Your task to perform on an android device: toggle notification dots Image 0: 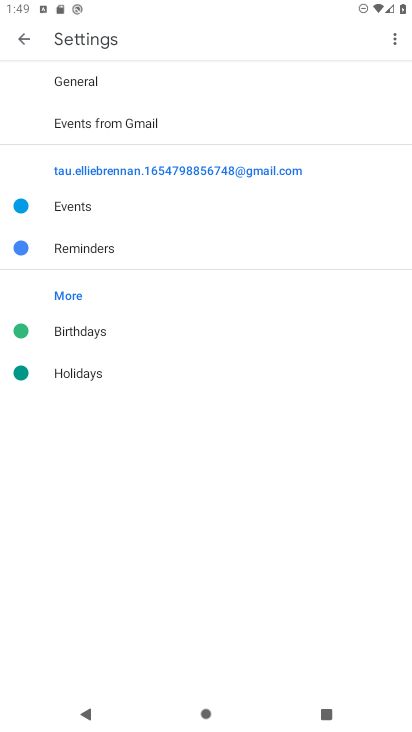
Step 0: press home button
Your task to perform on an android device: toggle notification dots Image 1: 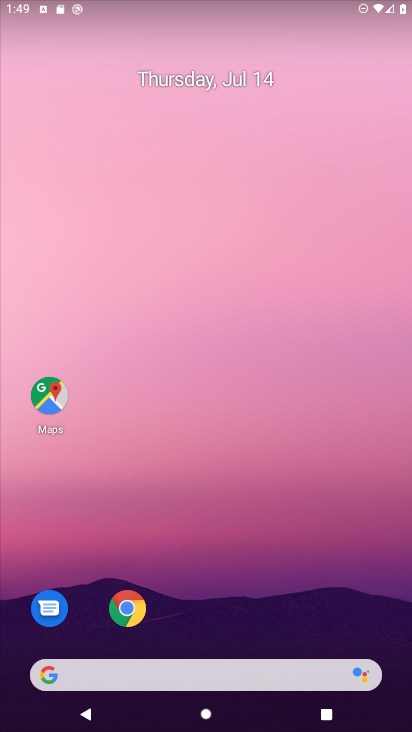
Step 1: drag from (391, 619) to (344, 150)
Your task to perform on an android device: toggle notification dots Image 2: 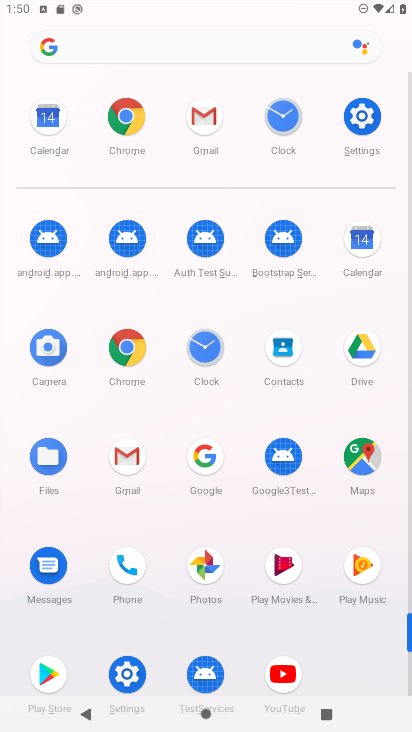
Step 2: click (125, 674)
Your task to perform on an android device: toggle notification dots Image 3: 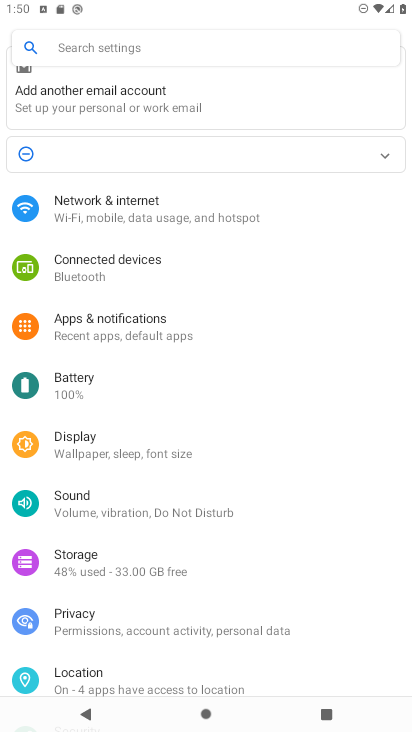
Step 3: click (102, 324)
Your task to perform on an android device: toggle notification dots Image 4: 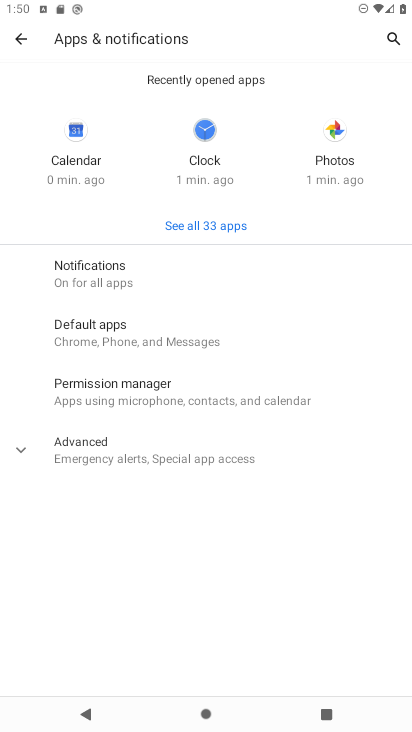
Step 4: click (79, 267)
Your task to perform on an android device: toggle notification dots Image 5: 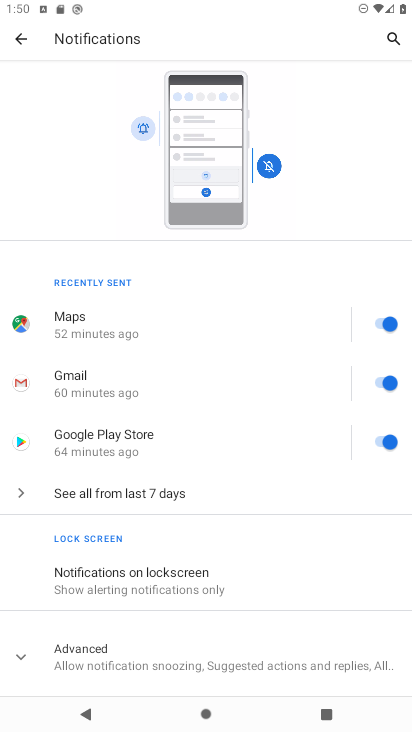
Step 5: click (17, 656)
Your task to perform on an android device: toggle notification dots Image 6: 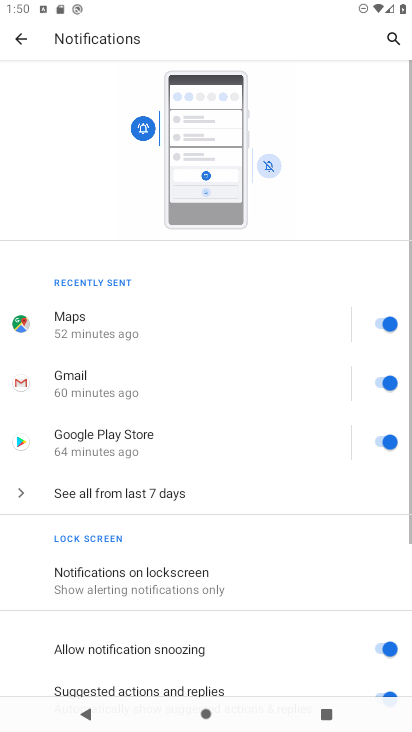
Step 6: drag from (254, 618) to (237, 292)
Your task to perform on an android device: toggle notification dots Image 7: 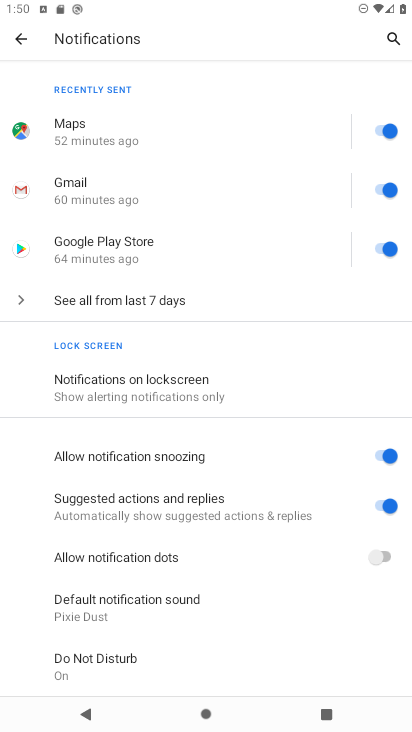
Step 7: click (387, 554)
Your task to perform on an android device: toggle notification dots Image 8: 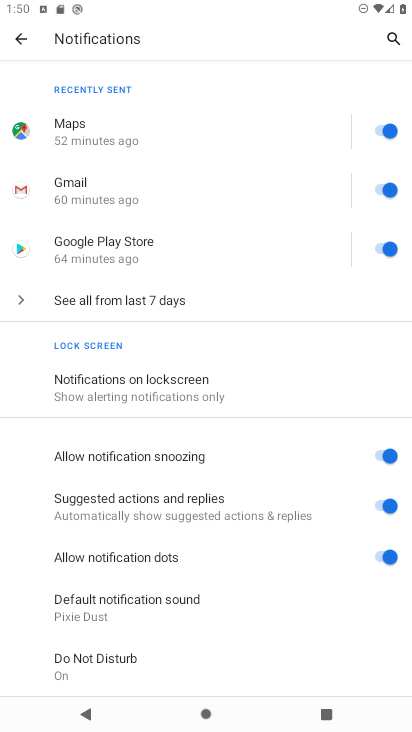
Step 8: task complete